Your task to perform on an android device: show emergency info Image 0: 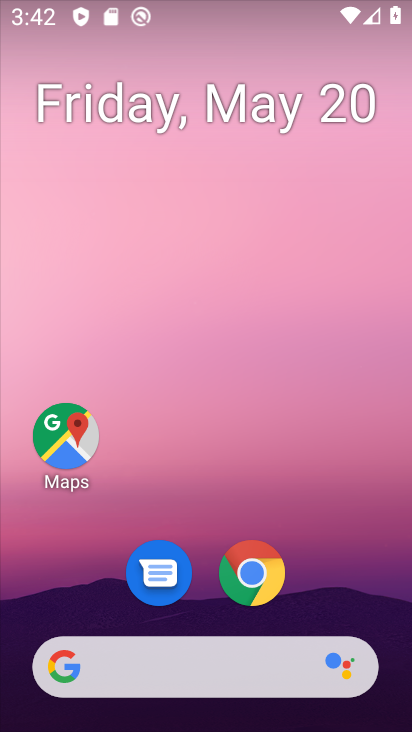
Step 0: drag from (346, 587) to (278, 154)
Your task to perform on an android device: show emergency info Image 1: 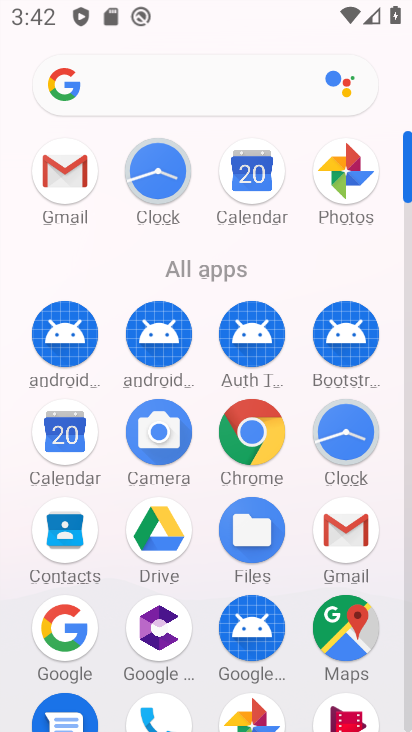
Step 1: click (405, 691)
Your task to perform on an android device: show emergency info Image 2: 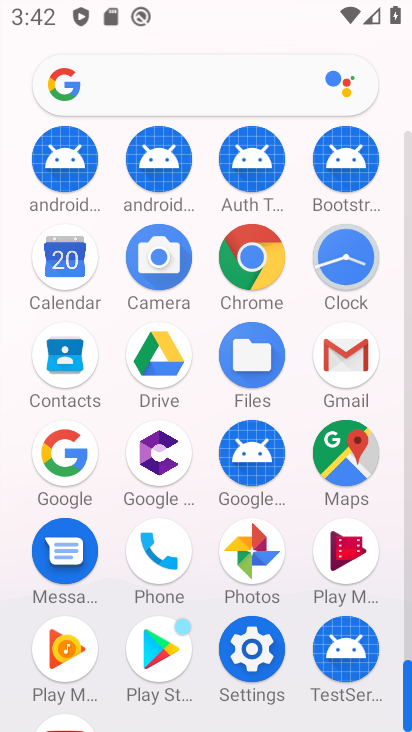
Step 2: click (261, 660)
Your task to perform on an android device: show emergency info Image 3: 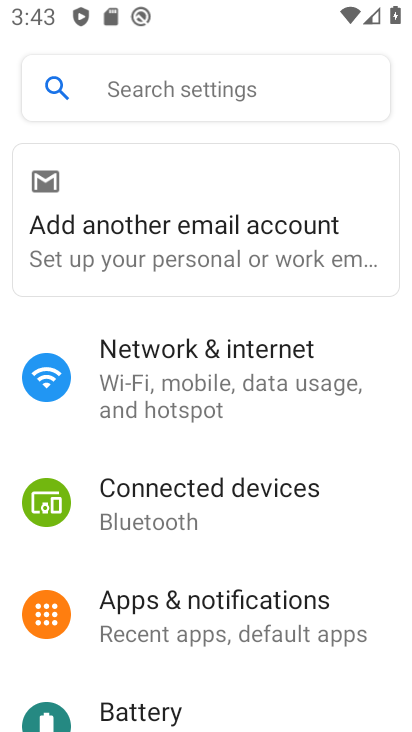
Step 3: drag from (261, 660) to (259, 277)
Your task to perform on an android device: show emergency info Image 4: 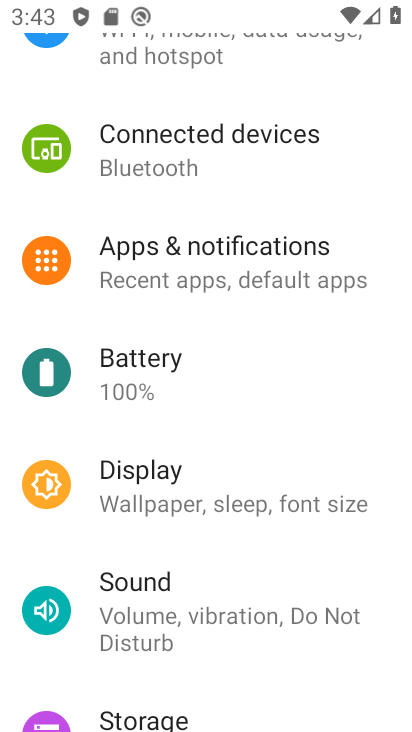
Step 4: drag from (262, 670) to (278, 248)
Your task to perform on an android device: show emergency info Image 5: 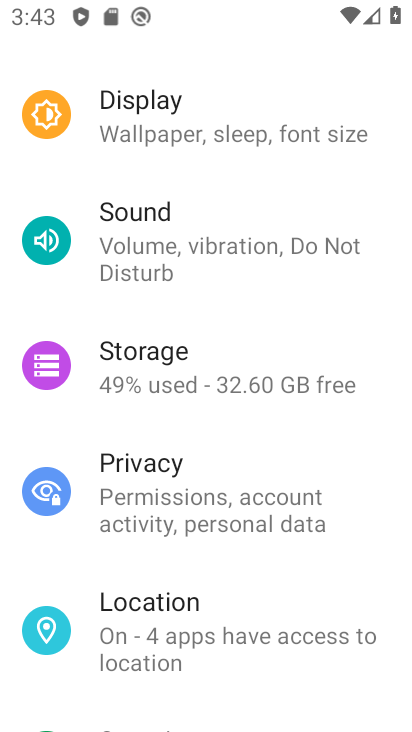
Step 5: drag from (257, 613) to (288, 216)
Your task to perform on an android device: show emergency info Image 6: 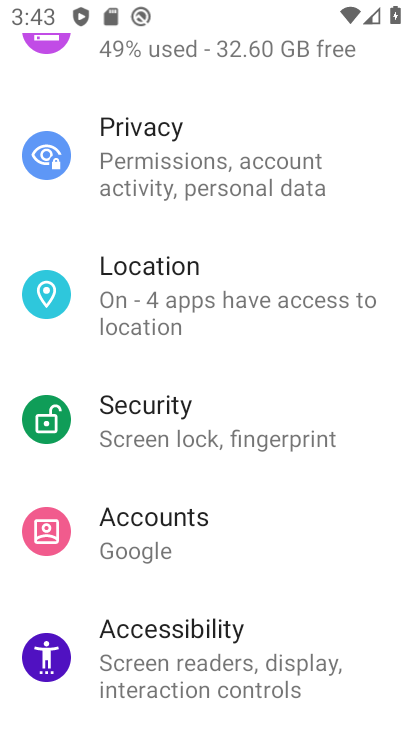
Step 6: drag from (307, 639) to (227, 166)
Your task to perform on an android device: show emergency info Image 7: 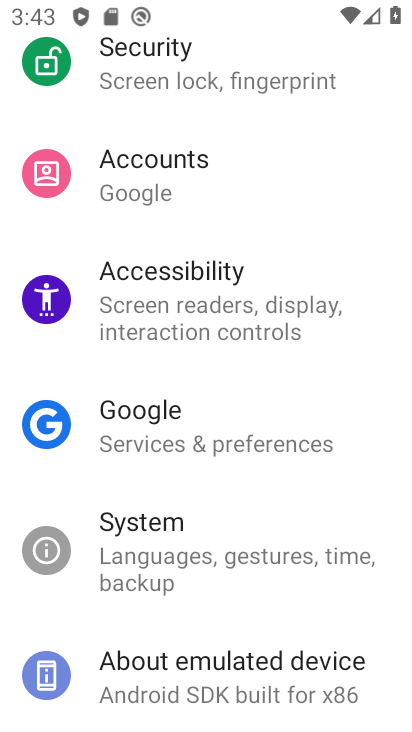
Step 7: click (222, 659)
Your task to perform on an android device: show emergency info Image 8: 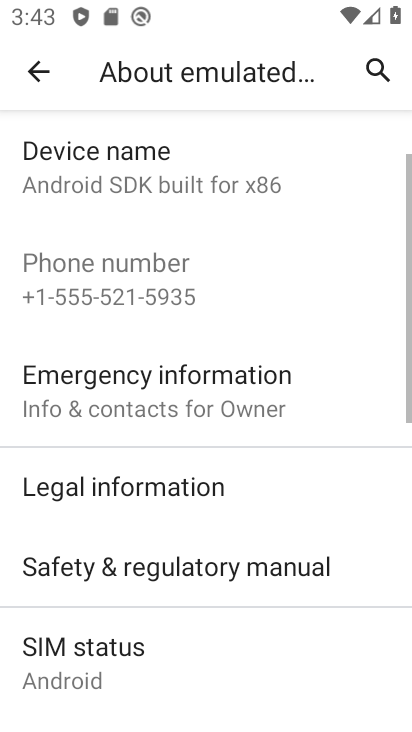
Step 8: click (230, 419)
Your task to perform on an android device: show emergency info Image 9: 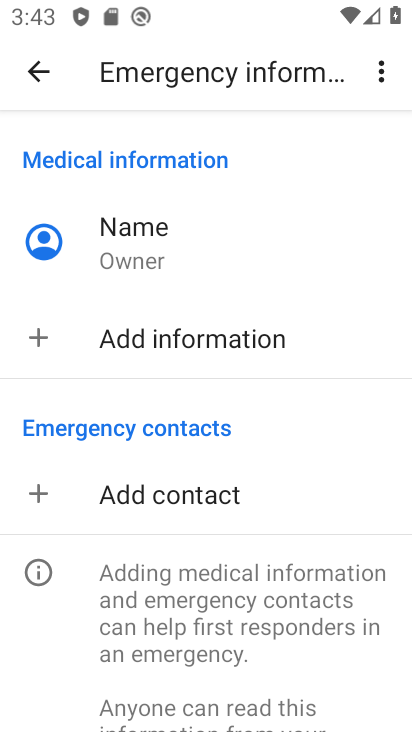
Step 9: task complete